Your task to perform on an android device: Go to calendar. Show me events next week Image 0: 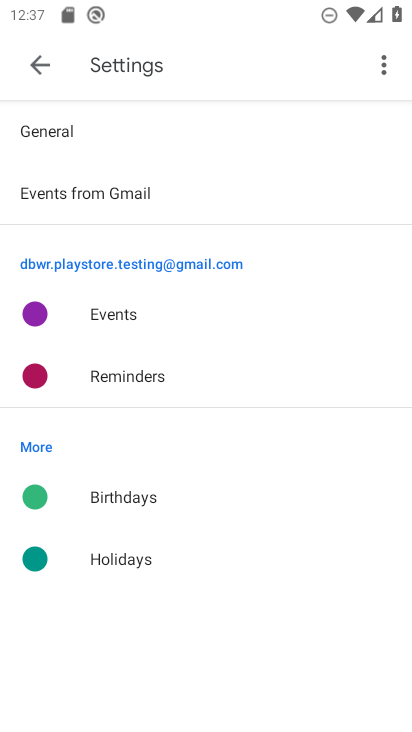
Step 0: drag from (328, 551) to (309, 217)
Your task to perform on an android device: Go to calendar. Show me events next week Image 1: 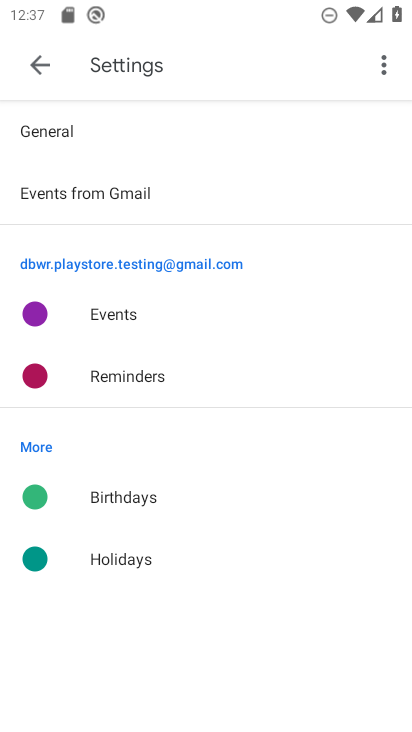
Step 1: press home button
Your task to perform on an android device: Go to calendar. Show me events next week Image 2: 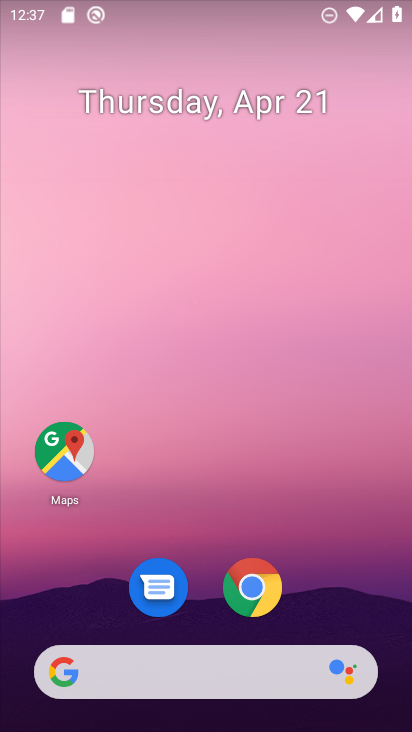
Step 2: drag from (203, 363) to (207, 6)
Your task to perform on an android device: Go to calendar. Show me events next week Image 3: 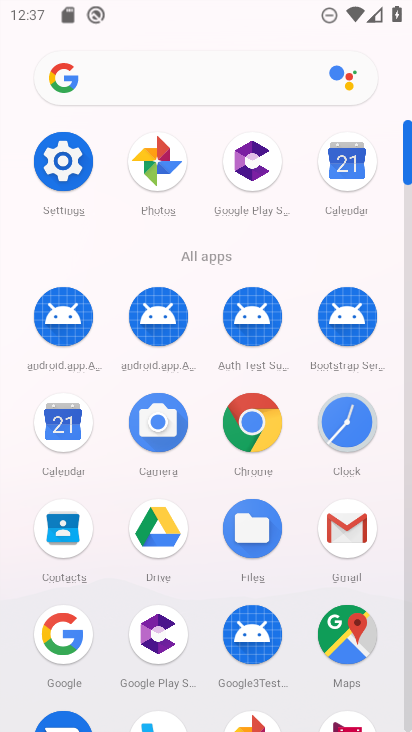
Step 3: click (64, 421)
Your task to perform on an android device: Go to calendar. Show me events next week Image 4: 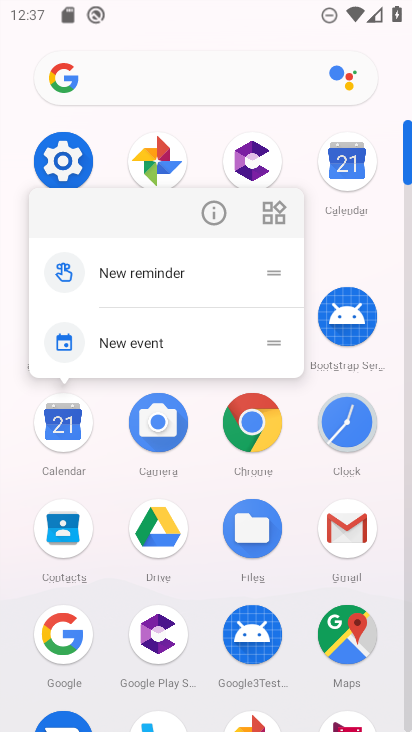
Step 4: click (64, 421)
Your task to perform on an android device: Go to calendar. Show me events next week Image 5: 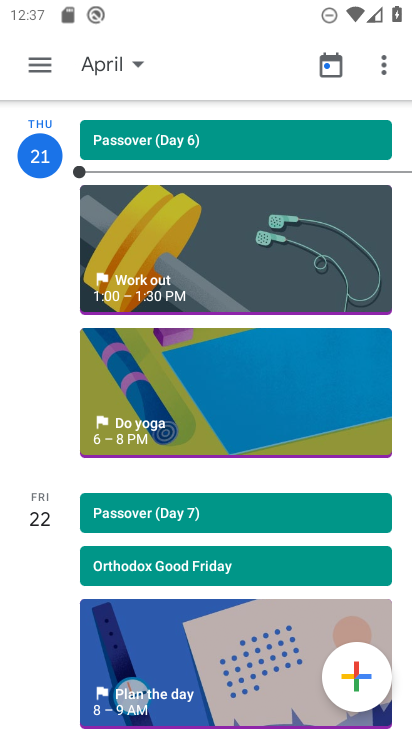
Step 5: click (135, 61)
Your task to perform on an android device: Go to calendar. Show me events next week Image 6: 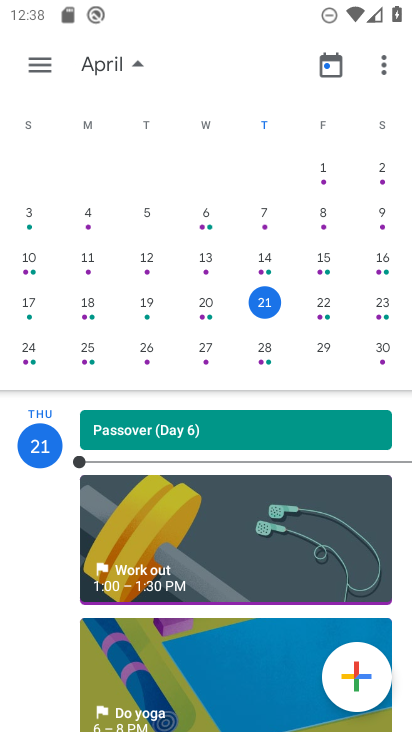
Step 6: click (85, 351)
Your task to perform on an android device: Go to calendar. Show me events next week Image 7: 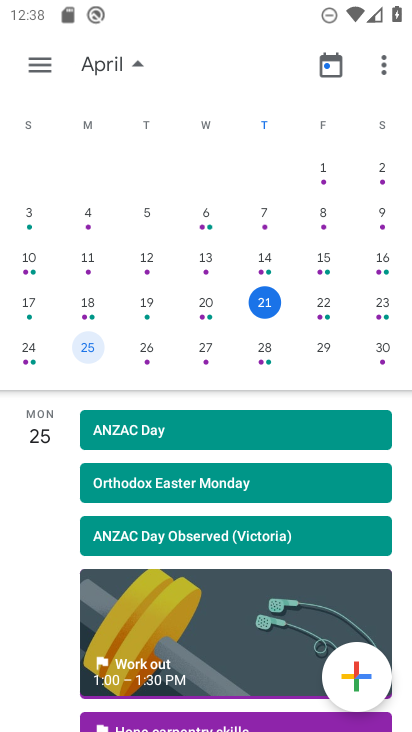
Step 7: click (41, 66)
Your task to perform on an android device: Go to calendar. Show me events next week Image 8: 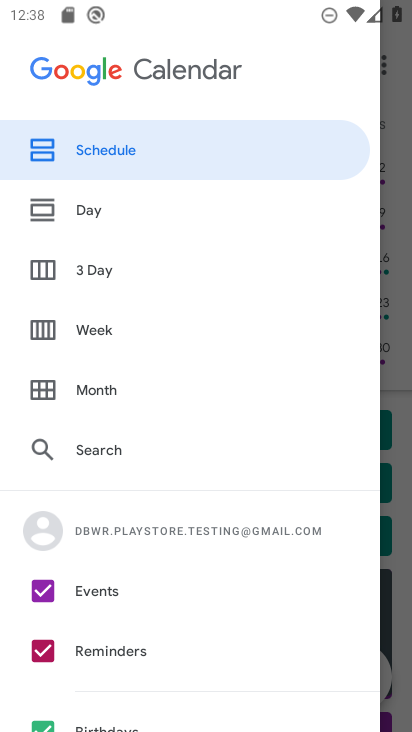
Step 8: click (91, 327)
Your task to perform on an android device: Go to calendar. Show me events next week Image 9: 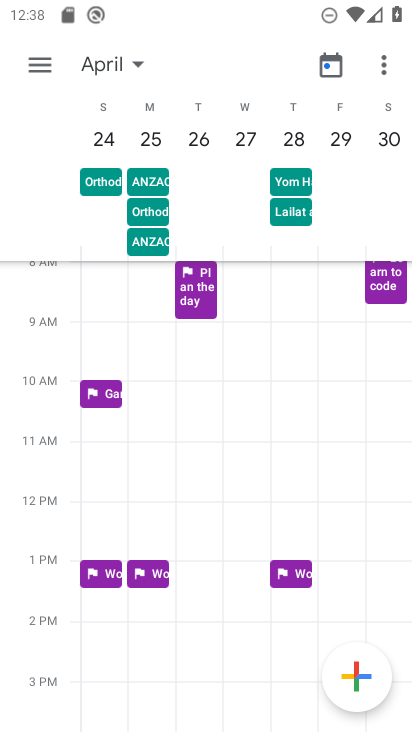
Step 9: task complete